Your task to perform on an android device: turn off picture-in-picture Image 0: 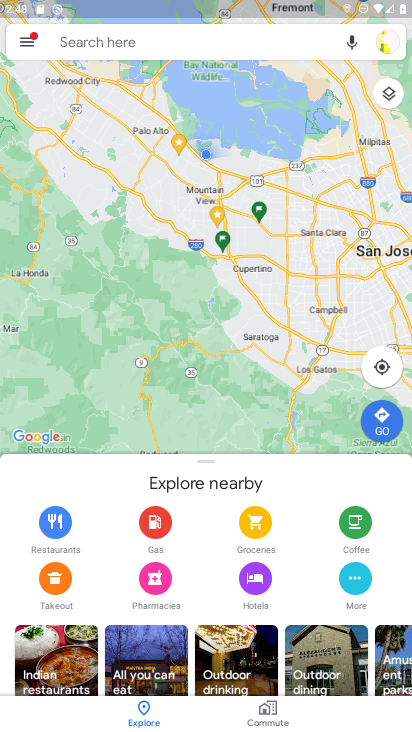
Step 0: press home button
Your task to perform on an android device: turn off picture-in-picture Image 1: 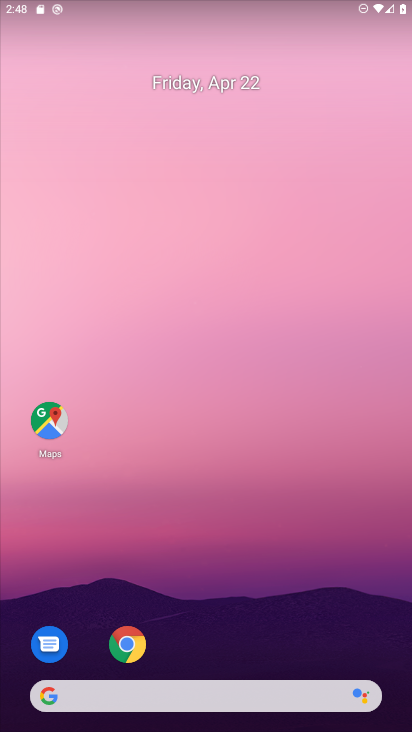
Step 1: click (129, 639)
Your task to perform on an android device: turn off picture-in-picture Image 2: 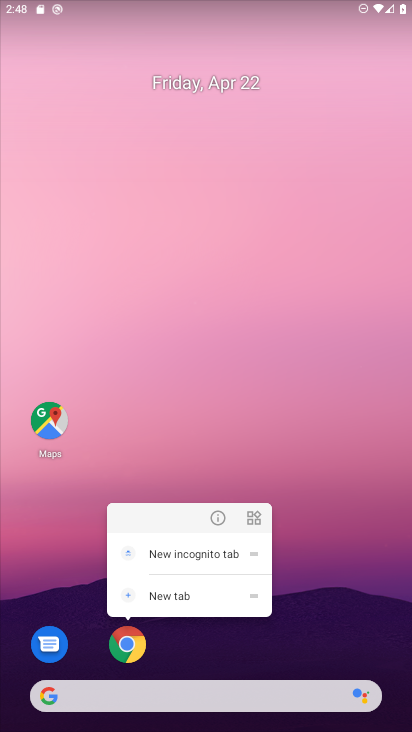
Step 2: click (212, 516)
Your task to perform on an android device: turn off picture-in-picture Image 3: 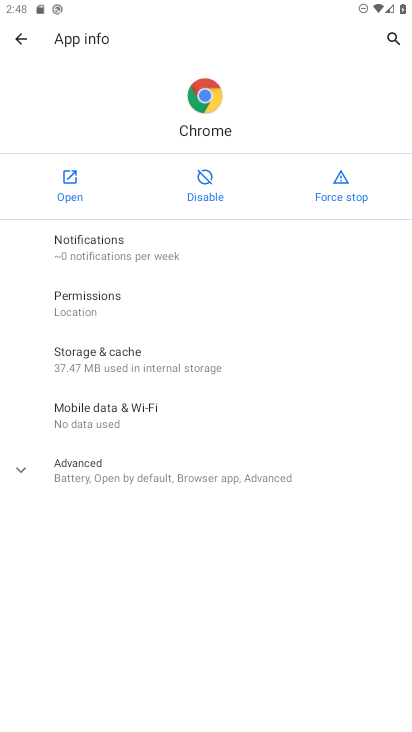
Step 3: click (115, 482)
Your task to perform on an android device: turn off picture-in-picture Image 4: 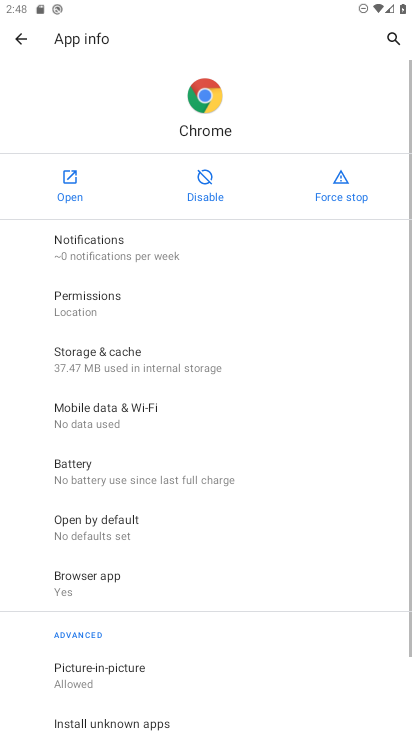
Step 4: drag from (162, 612) to (279, 189)
Your task to perform on an android device: turn off picture-in-picture Image 5: 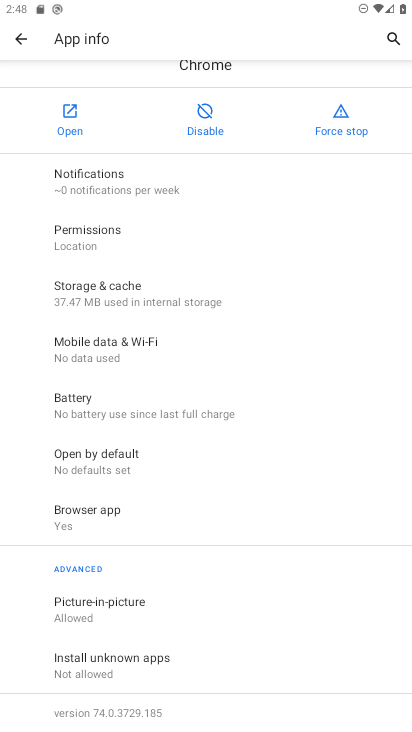
Step 5: click (112, 618)
Your task to perform on an android device: turn off picture-in-picture Image 6: 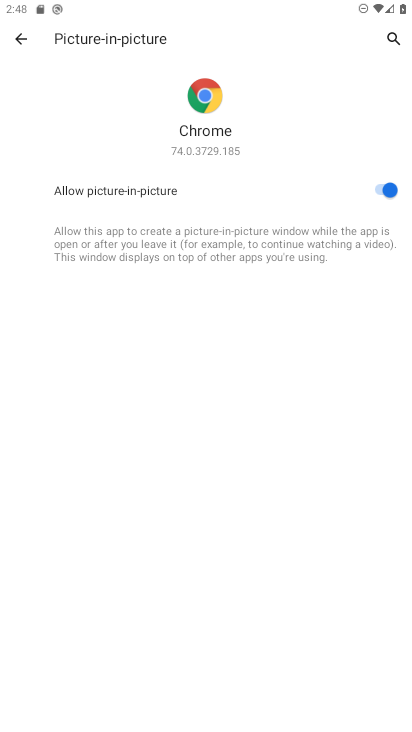
Step 6: click (359, 190)
Your task to perform on an android device: turn off picture-in-picture Image 7: 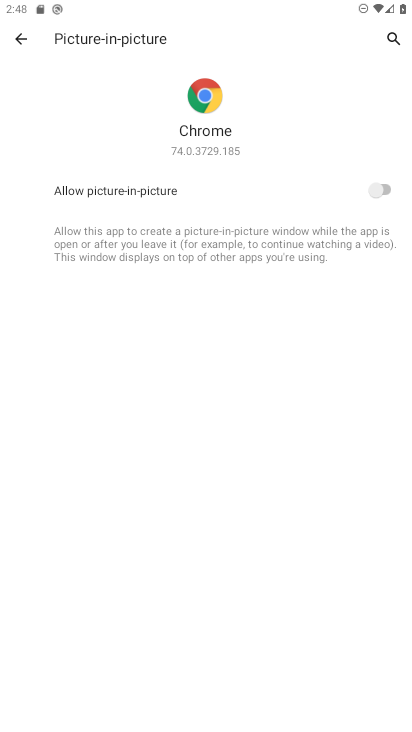
Step 7: task complete